Your task to perform on an android device: delete a single message in the gmail app Image 0: 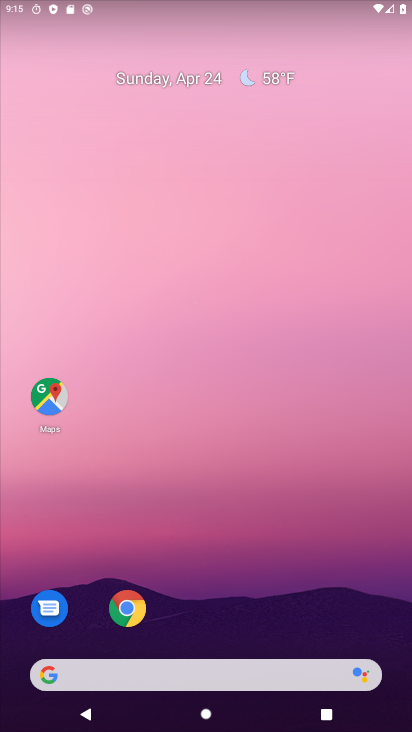
Step 0: drag from (351, 626) to (366, 70)
Your task to perform on an android device: delete a single message in the gmail app Image 1: 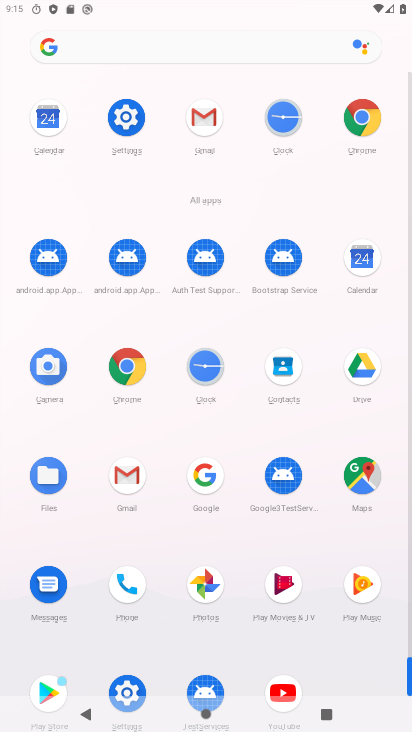
Step 1: click (203, 113)
Your task to perform on an android device: delete a single message in the gmail app Image 2: 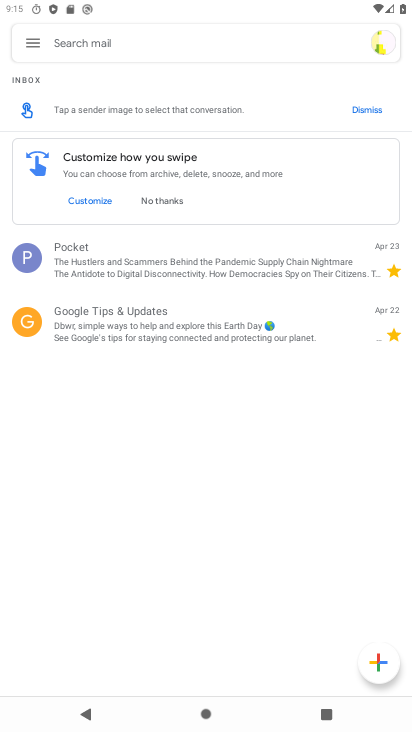
Step 2: click (157, 262)
Your task to perform on an android device: delete a single message in the gmail app Image 3: 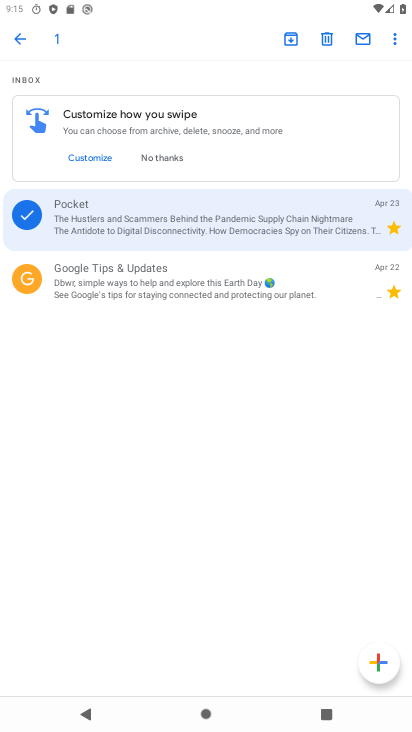
Step 3: click (327, 36)
Your task to perform on an android device: delete a single message in the gmail app Image 4: 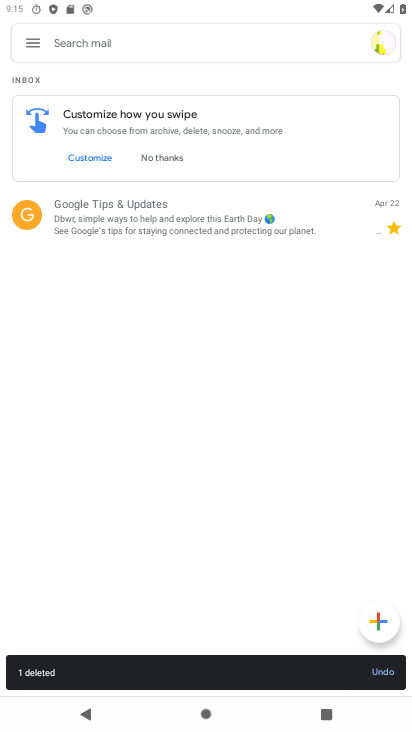
Step 4: task complete